Your task to perform on an android device: read, delete, or share a saved page in the chrome app Image 0: 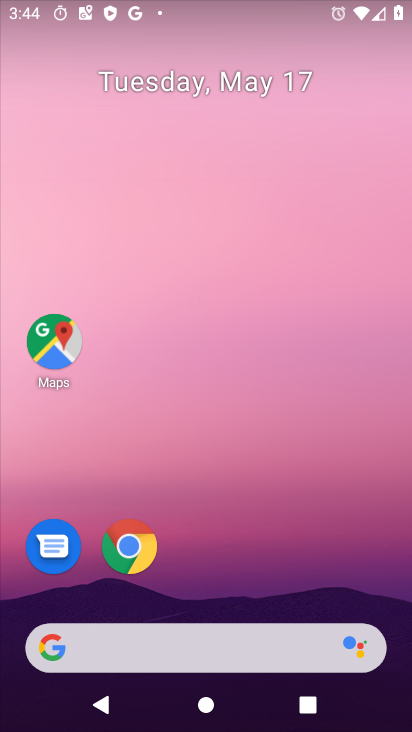
Step 0: click (124, 545)
Your task to perform on an android device: read, delete, or share a saved page in the chrome app Image 1: 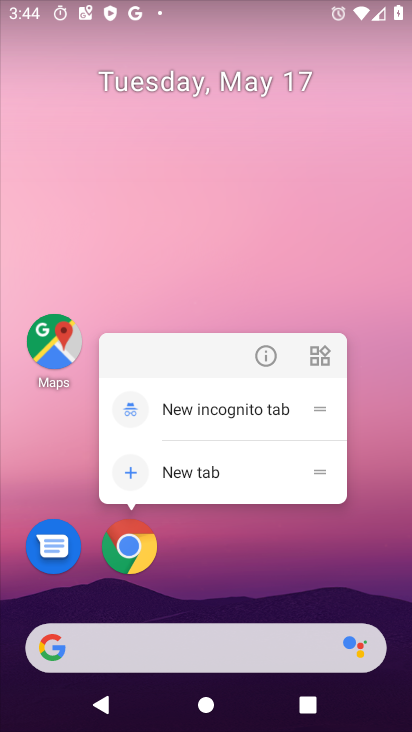
Step 1: click (132, 538)
Your task to perform on an android device: read, delete, or share a saved page in the chrome app Image 2: 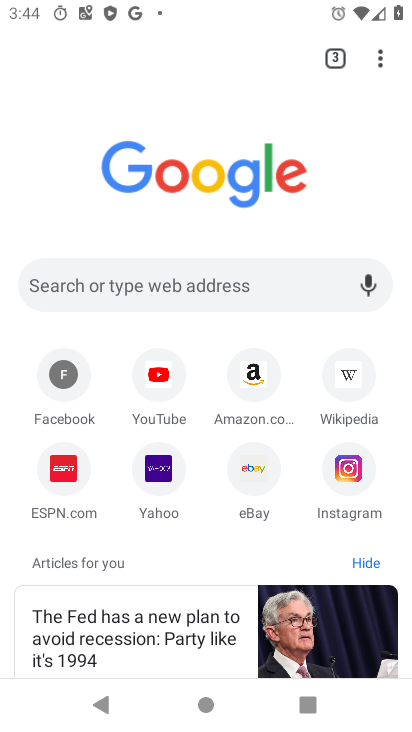
Step 2: click (382, 56)
Your task to perform on an android device: read, delete, or share a saved page in the chrome app Image 3: 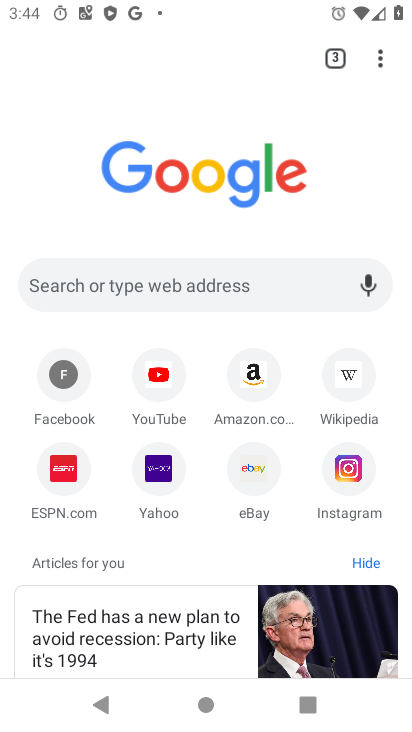
Step 3: click (375, 57)
Your task to perform on an android device: read, delete, or share a saved page in the chrome app Image 4: 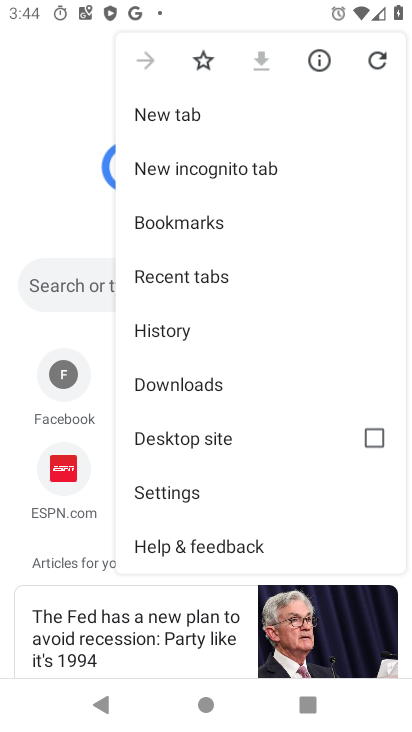
Step 4: click (162, 391)
Your task to perform on an android device: read, delete, or share a saved page in the chrome app Image 5: 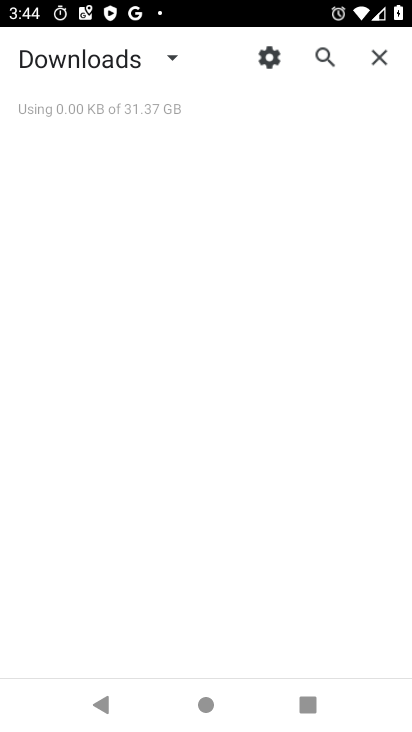
Step 5: task complete